Your task to perform on an android device: move a message to another label in the gmail app Image 0: 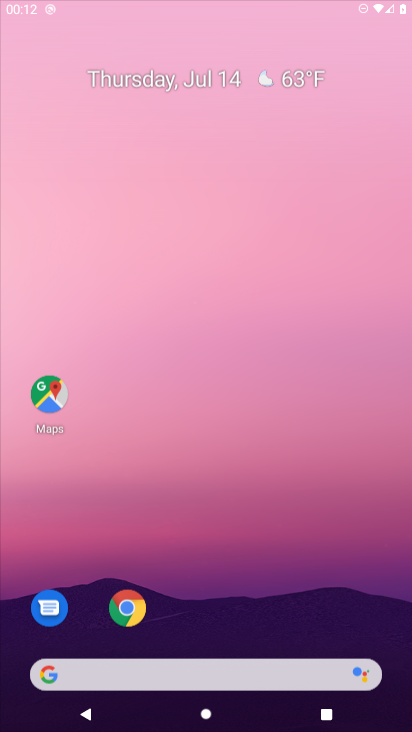
Step 0: press home button
Your task to perform on an android device: move a message to another label in the gmail app Image 1: 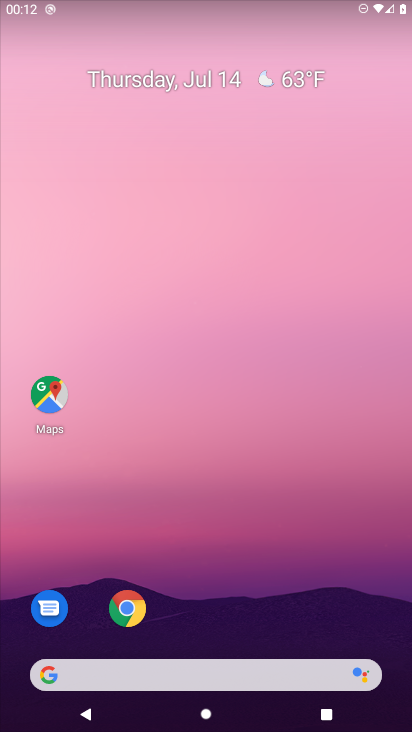
Step 1: drag from (214, 632) to (271, 132)
Your task to perform on an android device: move a message to another label in the gmail app Image 2: 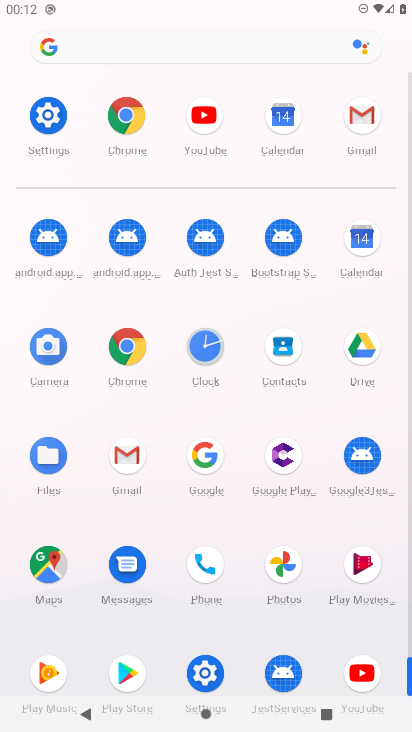
Step 2: click (361, 126)
Your task to perform on an android device: move a message to another label in the gmail app Image 3: 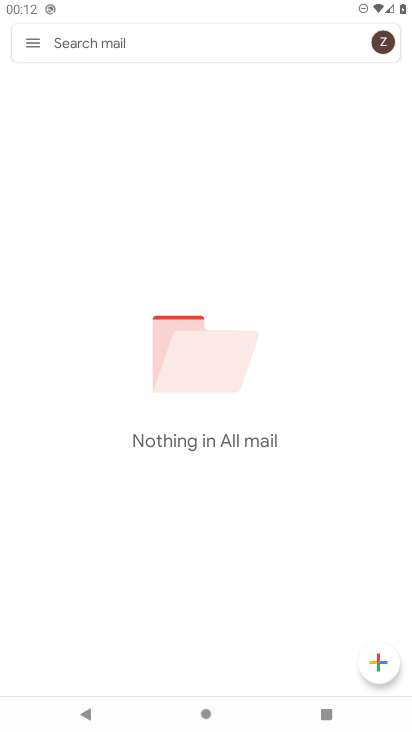
Step 3: click (24, 46)
Your task to perform on an android device: move a message to another label in the gmail app Image 4: 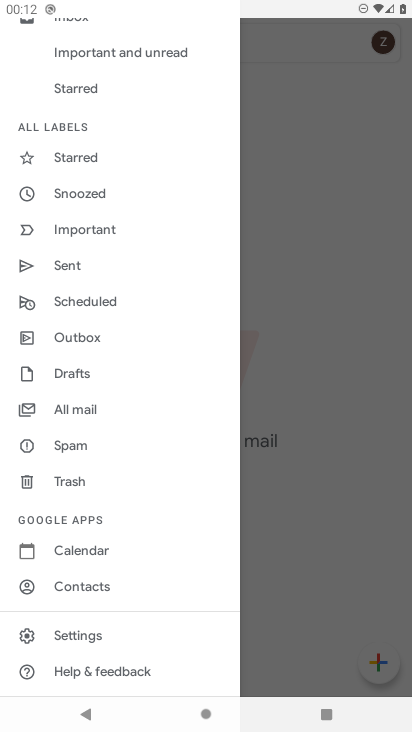
Step 4: click (73, 411)
Your task to perform on an android device: move a message to another label in the gmail app Image 5: 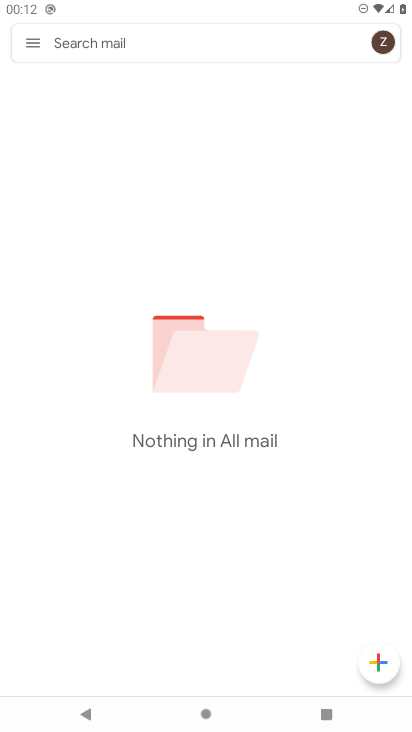
Step 5: task complete